Your task to perform on an android device: Play the last video I watched on Youtube Image 0: 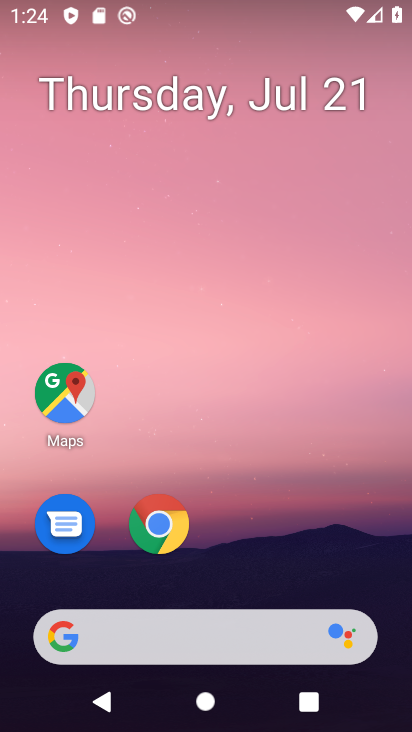
Step 0: drag from (264, 560) to (351, 124)
Your task to perform on an android device: Play the last video I watched on Youtube Image 1: 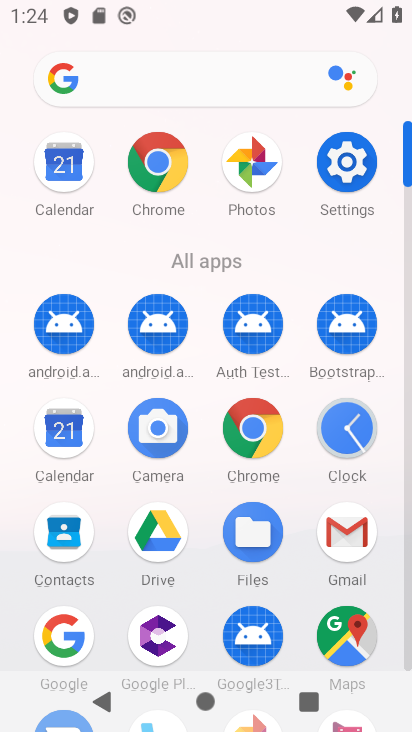
Step 1: drag from (193, 581) to (207, 350)
Your task to perform on an android device: Play the last video I watched on Youtube Image 2: 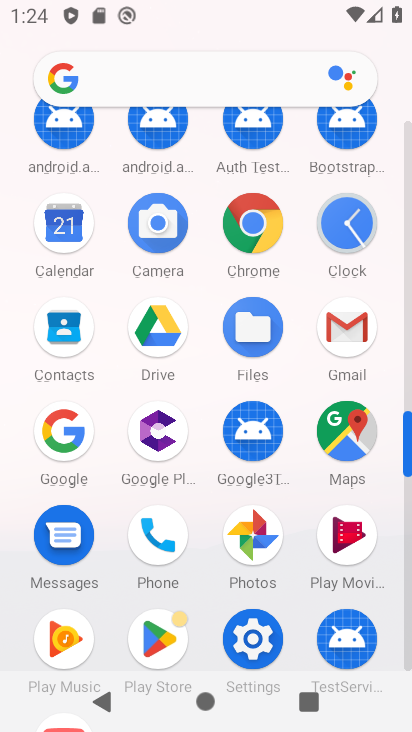
Step 2: drag from (194, 486) to (190, 431)
Your task to perform on an android device: Play the last video I watched on Youtube Image 3: 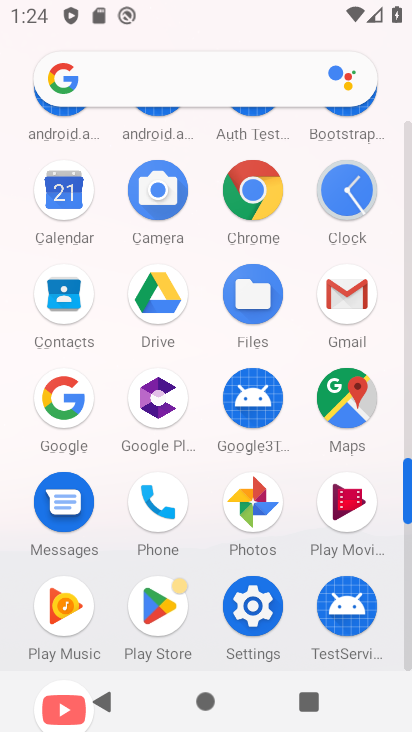
Step 3: drag from (204, 554) to (233, 305)
Your task to perform on an android device: Play the last video I watched on Youtube Image 4: 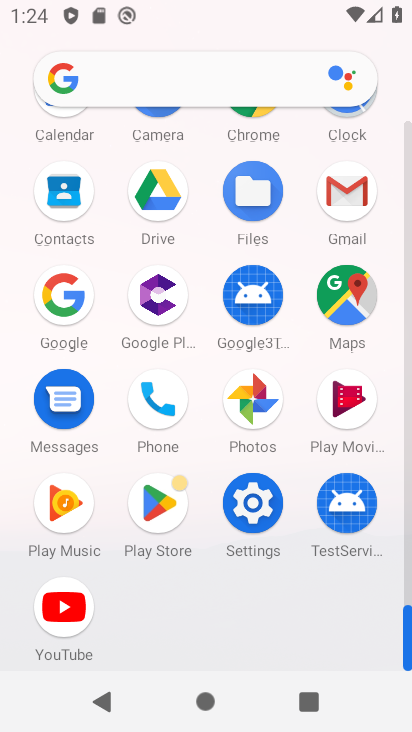
Step 4: click (65, 601)
Your task to perform on an android device: Play the last video I watched on Youtube Image 5: 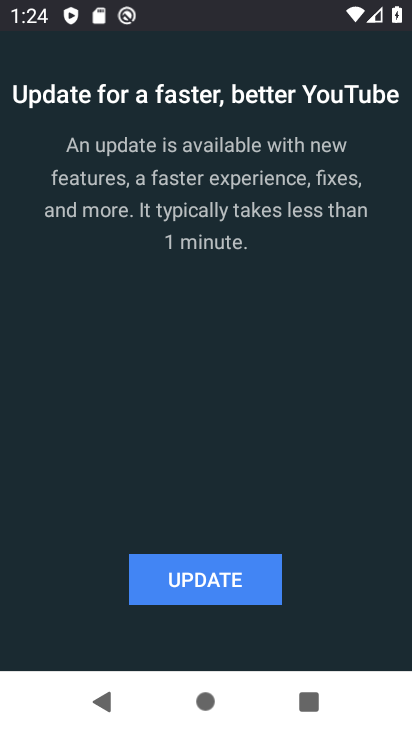
Step 5: click (169, 581)
Your task to perform on an android device: Play the last video I watched on Youtube Image 6: 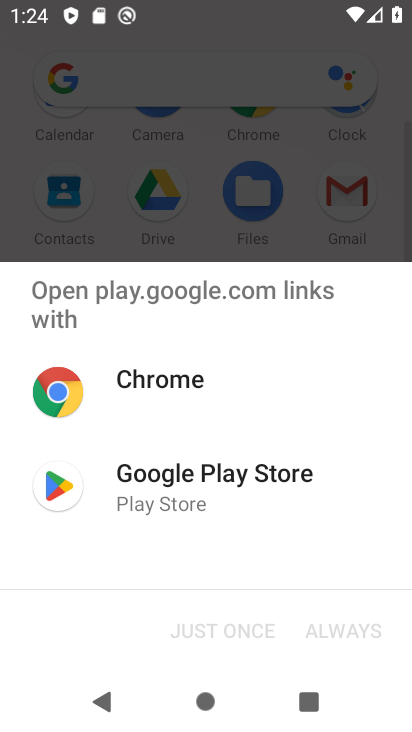
Step 6: click (180, 474)
Your task to perform on an android device: Play the last video I watched on Youtube Image 7: 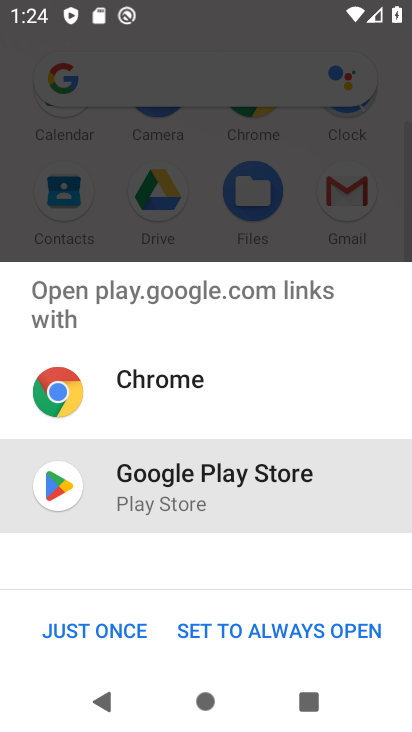
Step 7: click (105, 630)
Your task to perform on an android device: Play the last video I watched on Youtube Image 8: 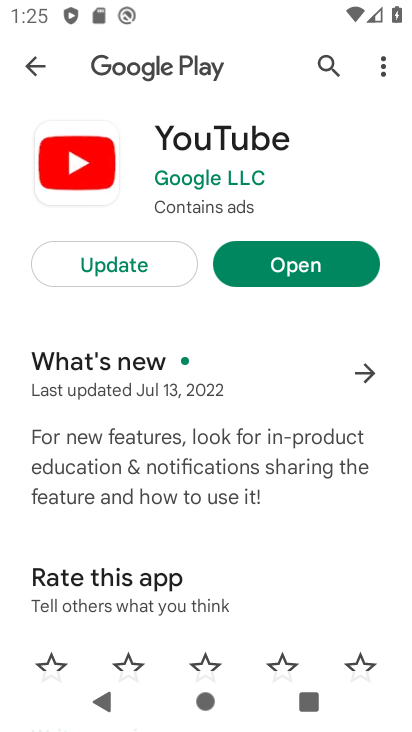
Step 8: click (309, 269)
Your task to perform on an android device: Play the last video I watched on Youtube Image 9: 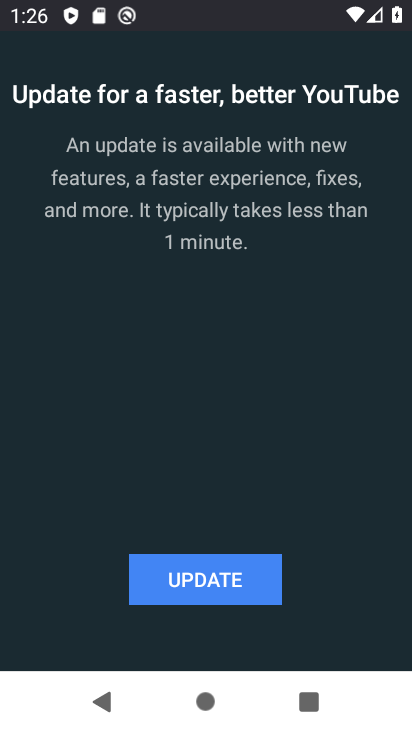
Step 9: click (232, 581)
Your task to perform on an android device: Play the last video I watched on Youtube Image 10: 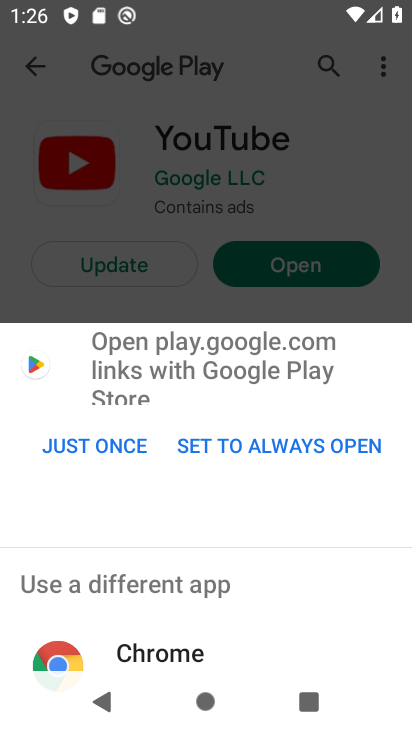
Step 10: click (115, 433)
Your task to perform on an android device: Play the last video I watched on Youtube Image 11: 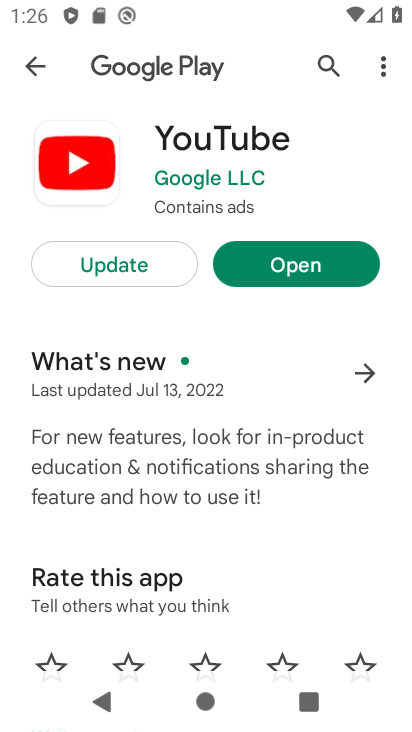
Step 11: click (125, 260)
Your task to perform on an android device: Play the last video I watched on Youtube Image 12: 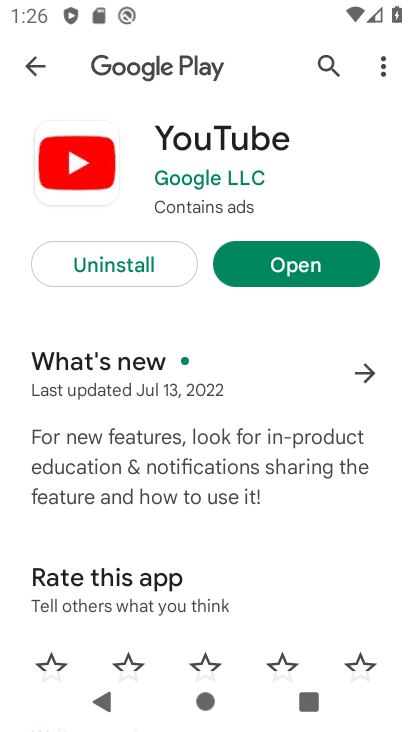
Step 12: click (292, 271)
Your task to perform on an android device: Play the last video I watched on Youtube Image 13: 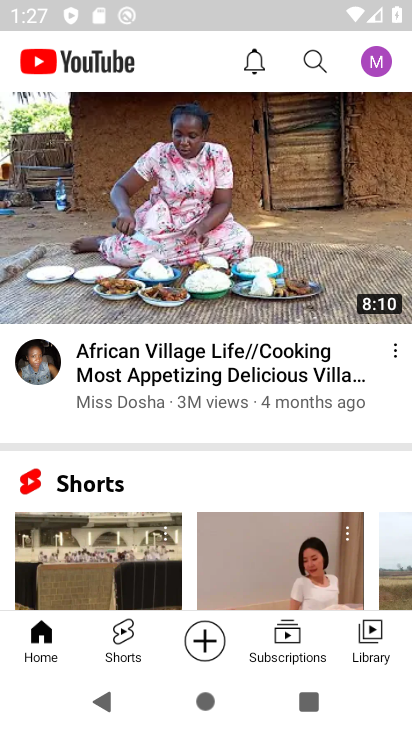
Step 13: click (368, 634)
Your task to perform on an android device: Play the last video I watched on Youtube Image 14: 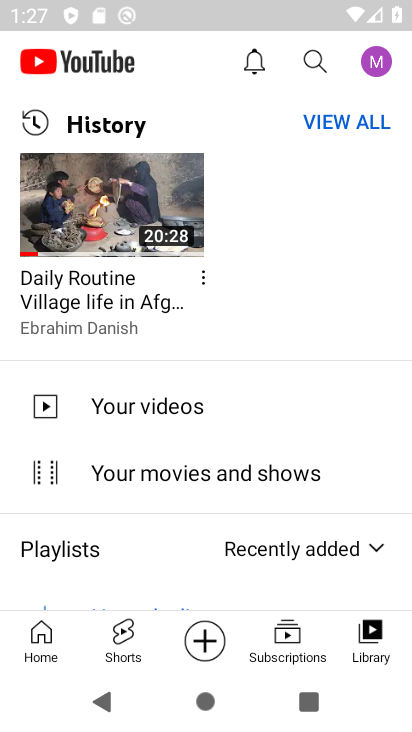
Step 14: click (128, 206)
Your task to perform on an android device: Play the last video I watched on Youtube Image 15: 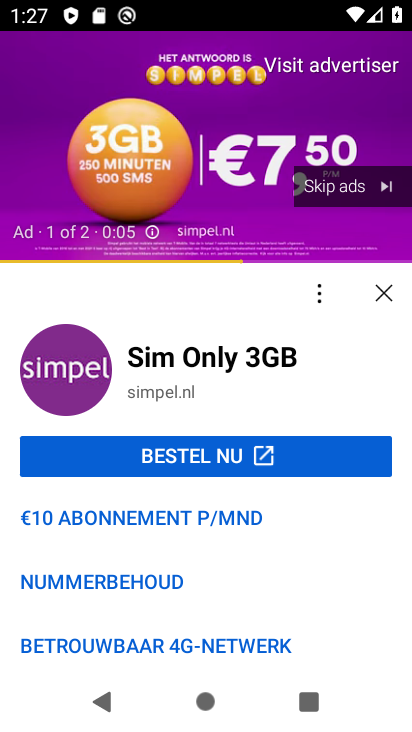
Step 15: click (366, 185)
Your task to perform on an android device: Play the last video I watched on Youtube Image 16: 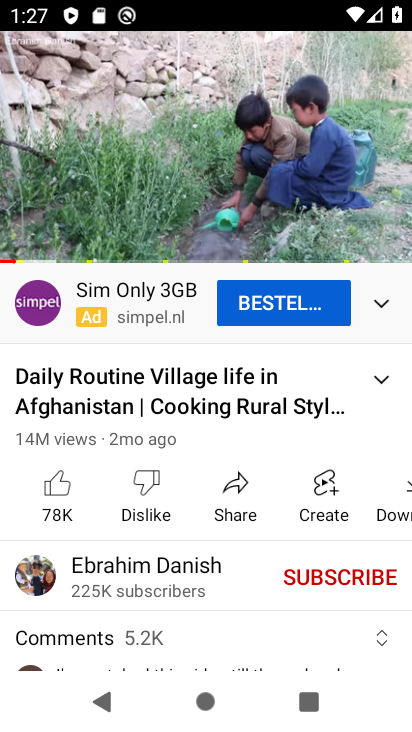
Step 16: task complete